Your task to perform on an android device: Go to network settings Image 0: 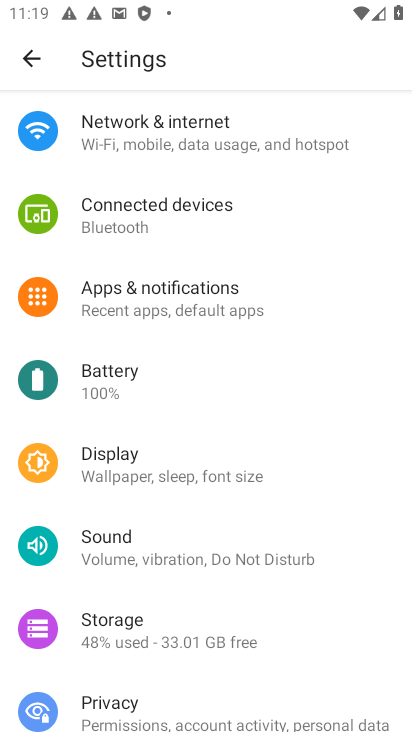
Step 0: click (85, 129)
Your task to perform on an android device: Go to network settings Image 1: 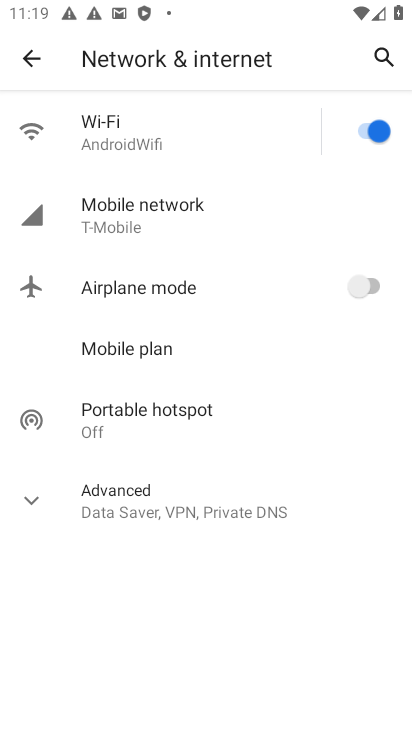
Step 1: click (97, 200)
Your task to perform on an android device: Go to network settings Image 2: 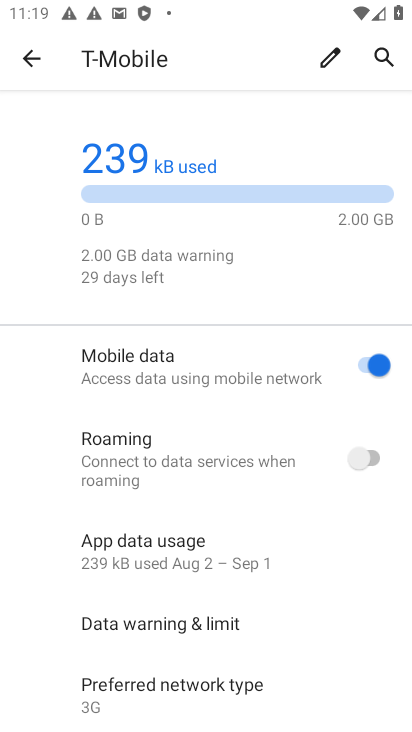
Step 2: task complete